Your task to perform on an android device: Find coffee shops on Maps Image 0: 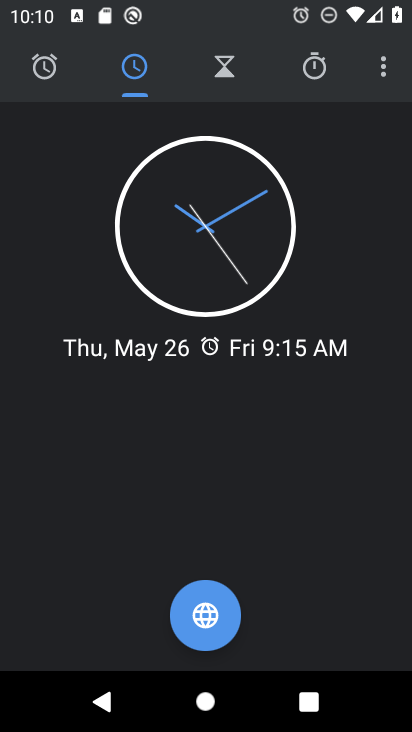
Step 0: press home button
Your task to perform on an android device: Find coffee shops on Maps Image 1: 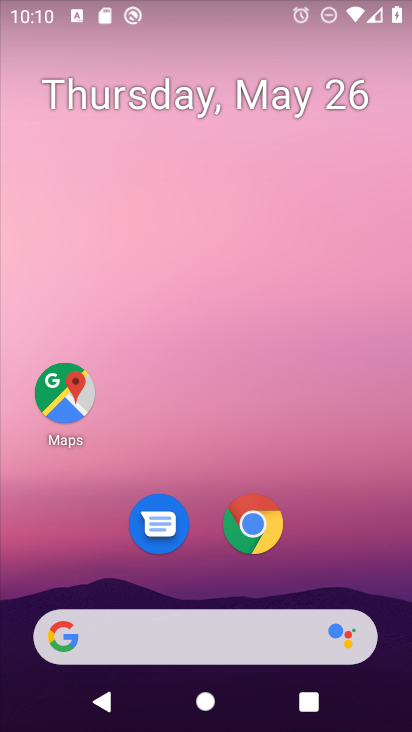
Step 1: click (55, 374)
Your task to perform on an android device: Find coffee shops on Maps Image 2: 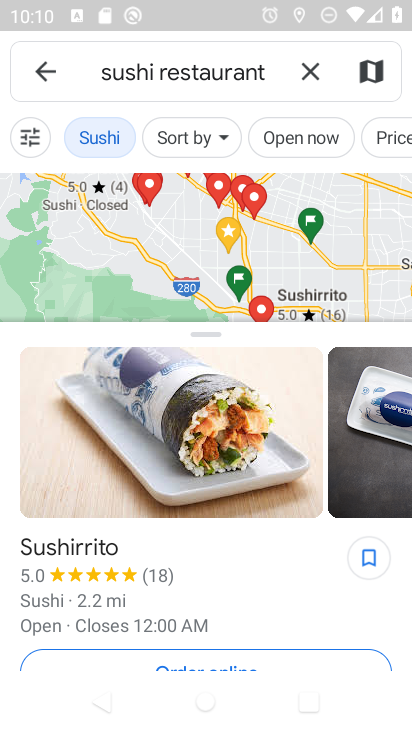
Step 2: click (303, 68)
Your task to perform on an android device: Find coffee shops on Maps Image 3: 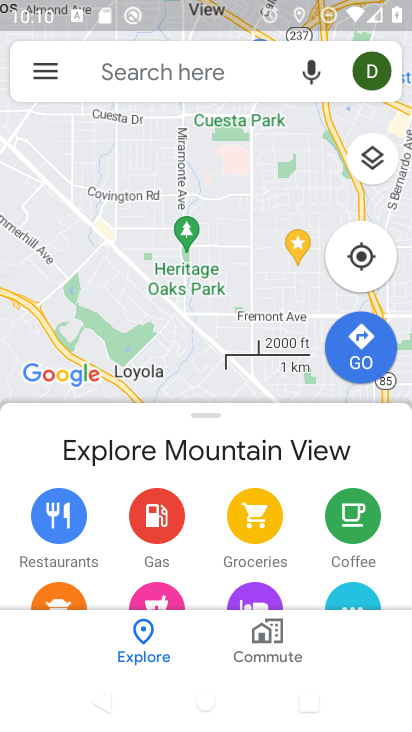
Step 3: click (225, 64)
Your task to perform on an android device: Find coffee shops on Maps Image 4: 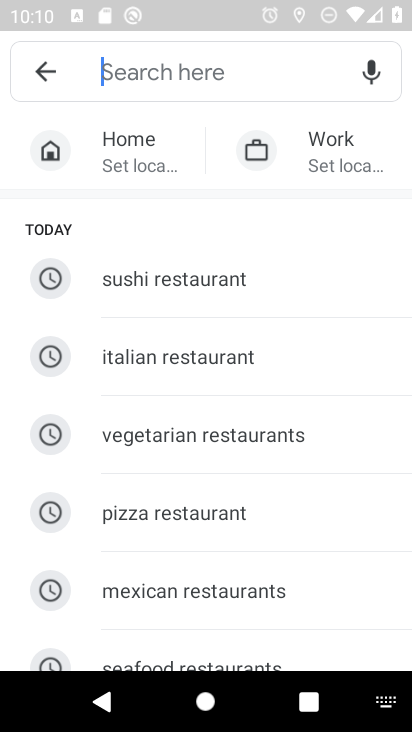
Step 4: type "coffee shops"
Your task to perform on an android device: Find coffee shops on Maps Image 5: 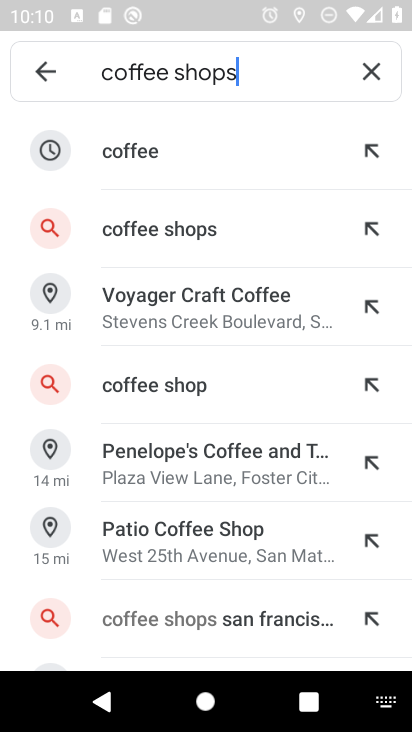
Step 5: click (204, 222)
Your task to perform on an android device: Find coffee shops on Maps Image 6: 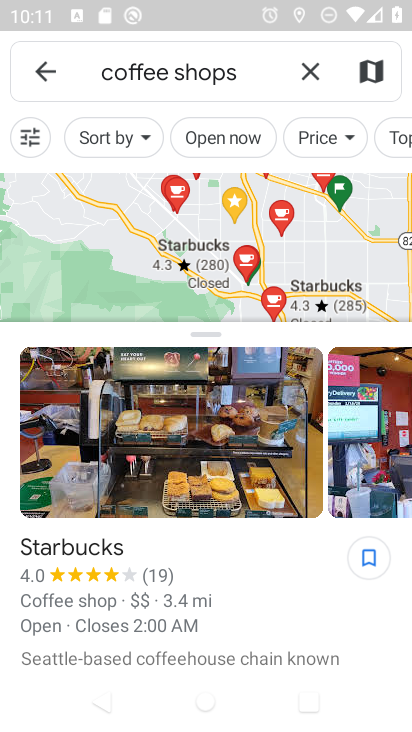
Step 6: task complete